Your task to perform on an android device: choose inbox layout in the gmail app Image 0: 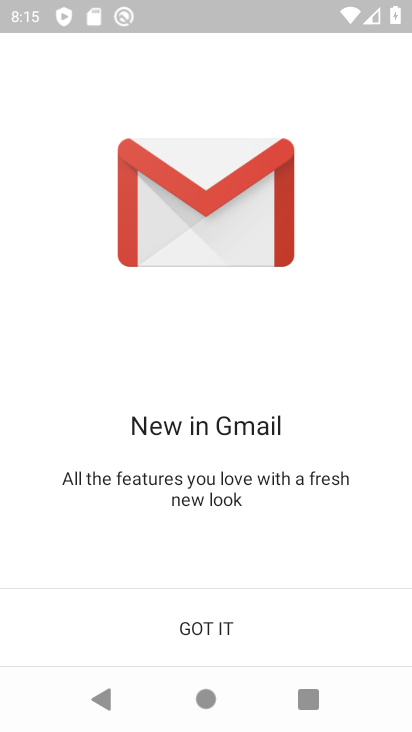
Step 0: press home button
Your task to perform on an android device: choose inbox layout in the gmail app Image 1: 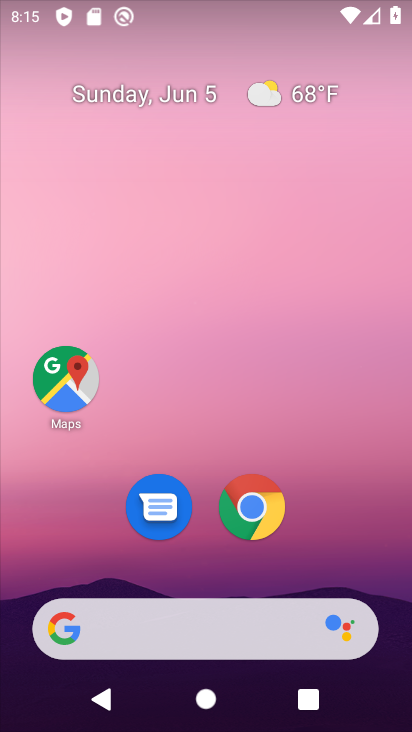
Step 1: drag from (235, 720) to (231, 172)
Your task to perform on an android device: choose inbox layout in the gmail app Image 2: 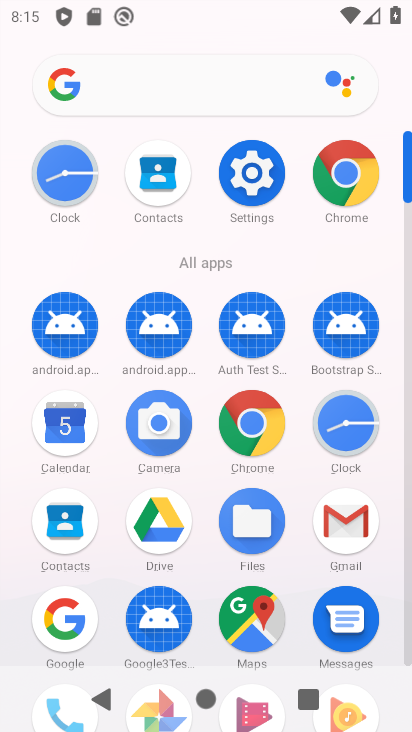
Step 2: click (335, 523)
Your task to perform on an android device: choose inbox layout in the gmail app Image 3: 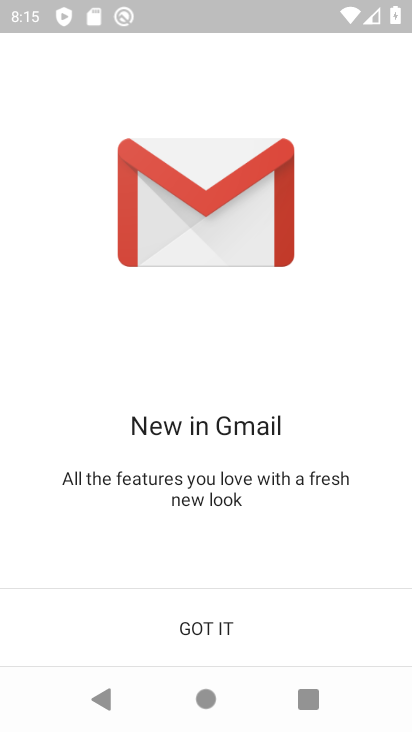
Step 3: click (217, 625)
Your task to perform on an android device: choose inbox layout in the gmail app Image 4: 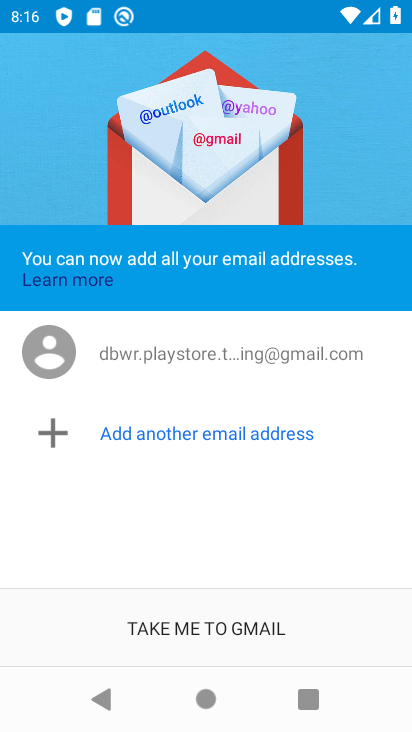
Step 4: click (217, 625)
Your task to perform on an android device: choose inbox layout in the gmail app Image 5: 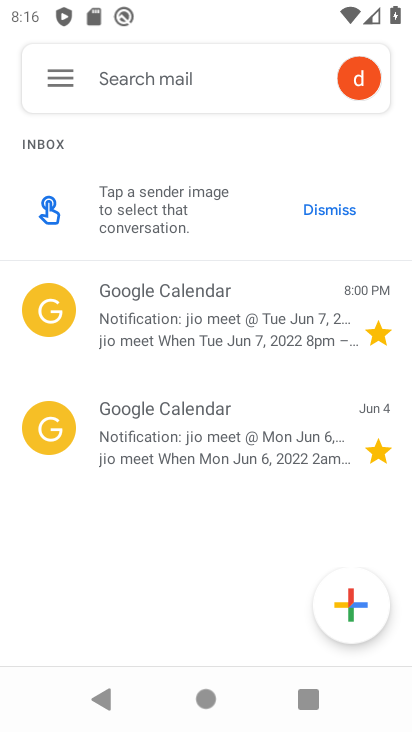
Step 5: click (64, 77)
Your task to perform on an android device: choose inbox layout in the gmail app Image 6: 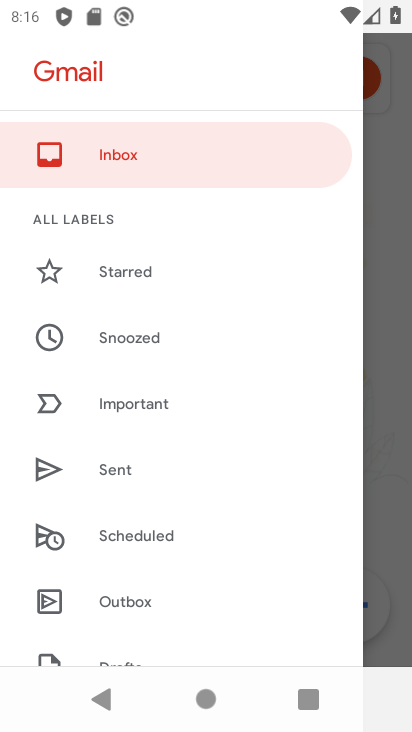
Step 6: drag from (129, 648) to (127, 267)
Your task to perform on an android device: choose inbox layout in the gmail app Image 7: 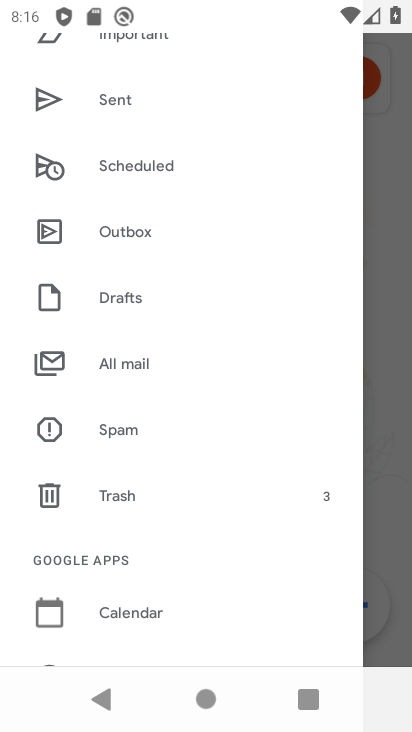
Step 7: drag from (126, 642) to (132, 187)
Your task to perform on an android device: choose inbox layout in the gmail app Image 8: 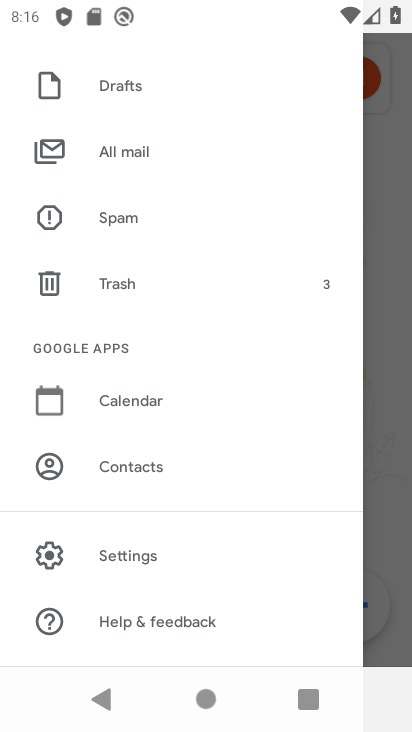
Step 8: click (127, 554)
Your task to perform on an android device: choose inbox layout in the gmail app Image 9: 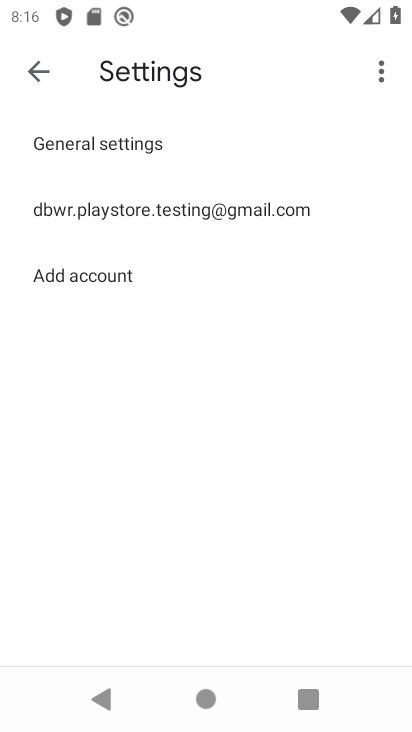
Step 9: click (147, 210)
Your task to perform on an android device: choose inbox layout in the gmail app Image 10: 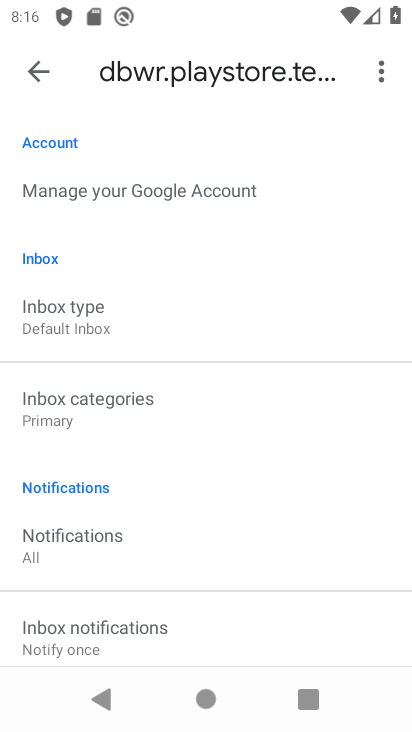
Step 10: click (80, 324)
Your task to perform on an android device: choose inbox layout in the gmail app Image 11: 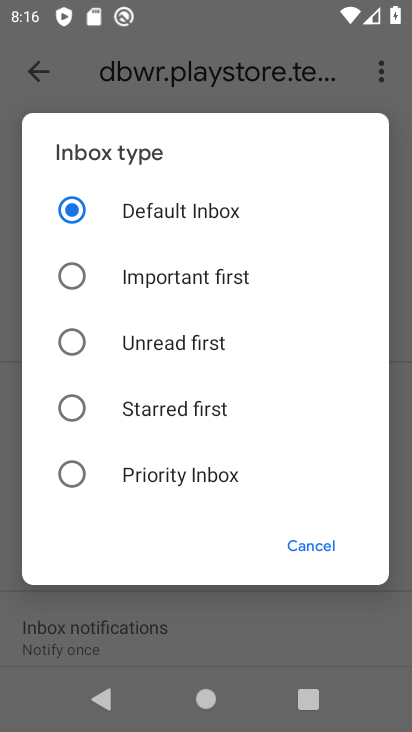
Step 11: click (71, 338)
Your task to perform on an android device: choose inbox layout in the gmail app Image 12: 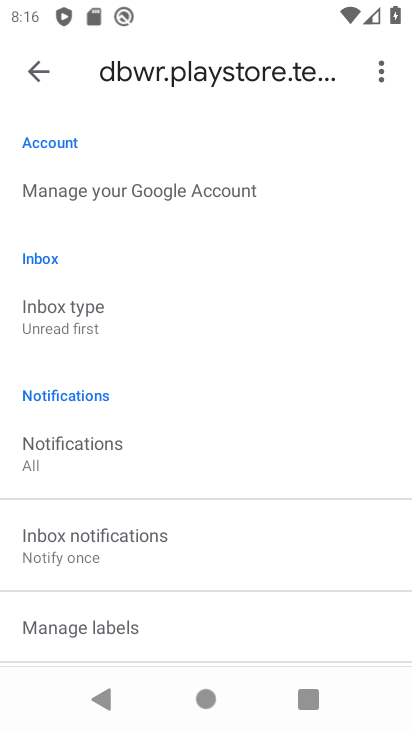
Step 12: task complete